Your task to perform on an android device: change the clock style Image 0: 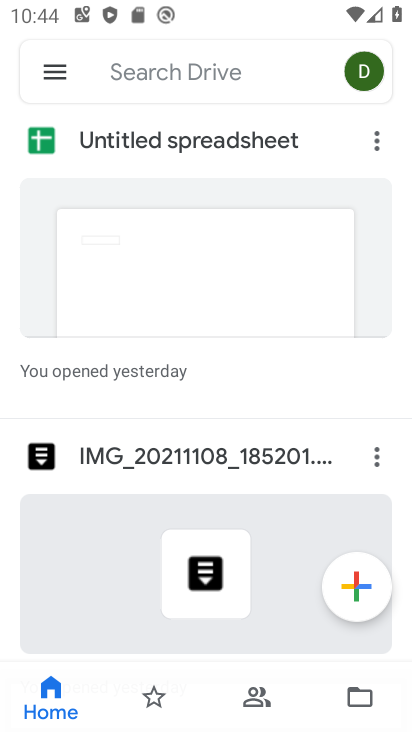
Step 0: press back button
Your task to perform on an android device: change the clock style Image 1: 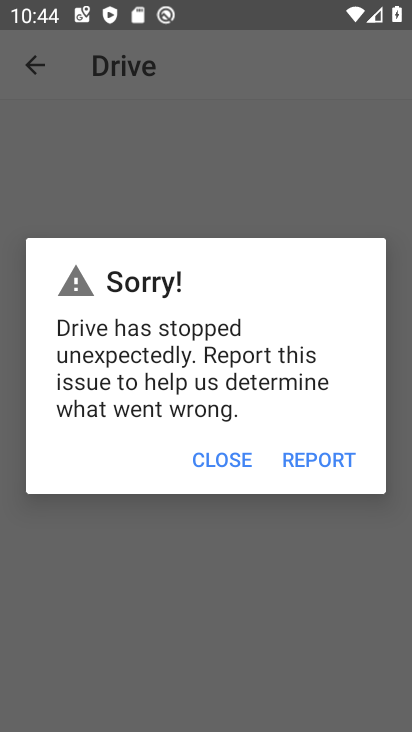
Step 1: press home button
Your task to perform on an android device: change the clock style Image 2: 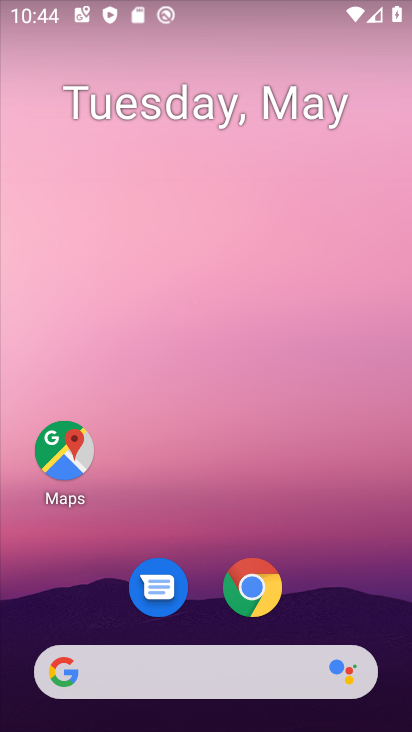
Step 2: drag from (308, 586) to (236, 73)
Your task to perform on an android device: change the clock style Image 3: 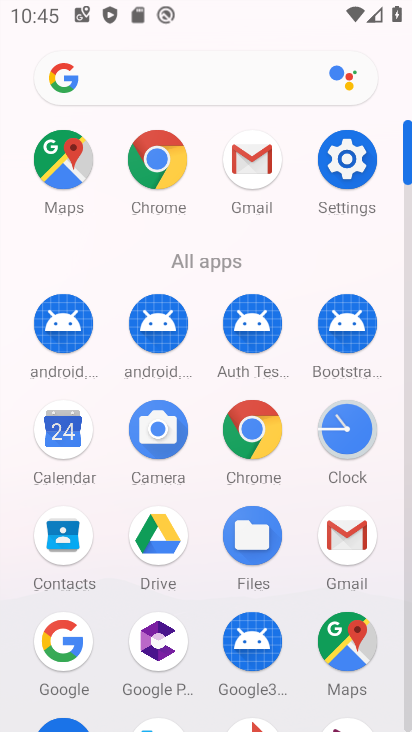
Step 3: drag from (3, 533) to (3, 261)
Your task to perform on an android device: change the clock style Image 4: 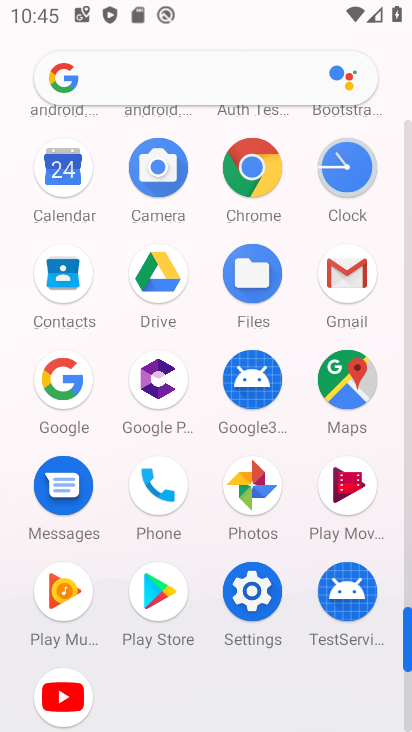
Step 4: click (343, 160)
Your task to perform on an android device: change the clock style Image 5: 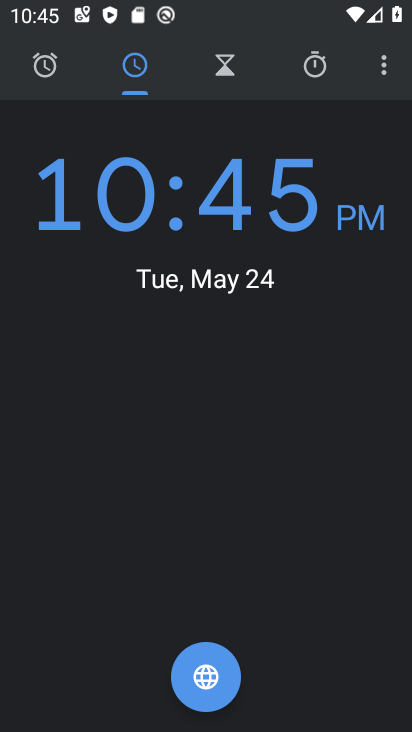
Step 5: drag from (381, 65) to (329, 127)
Your task to perform on an android device: change the clock style Image 6: 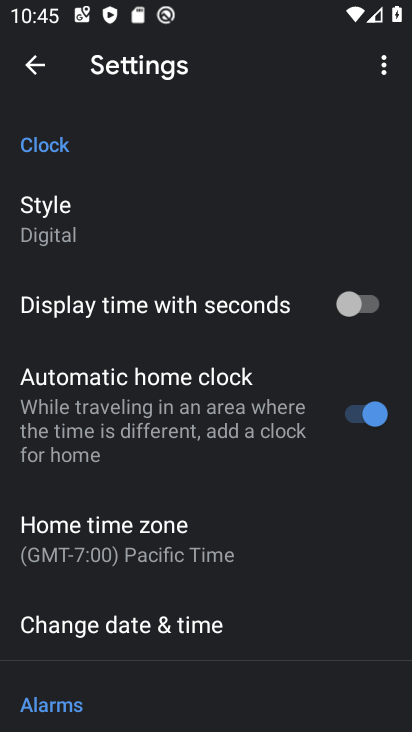
Step 6: click (117, 223)
Your task to perform on an android device: change the clock style Image 7: 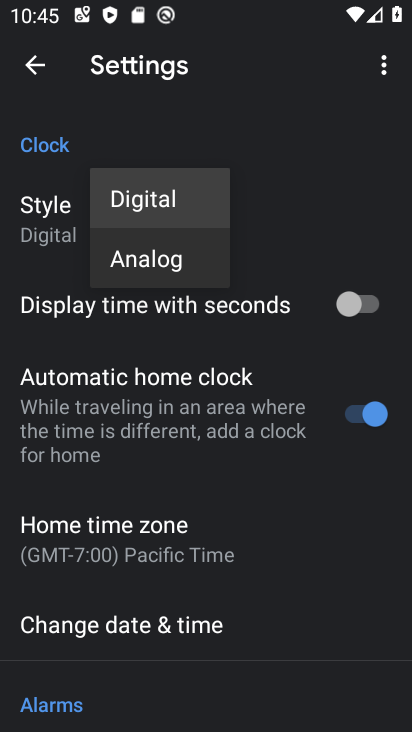
Step 7: click (141, 253)
Your task to perform on an android device: change the clock style Image 8: 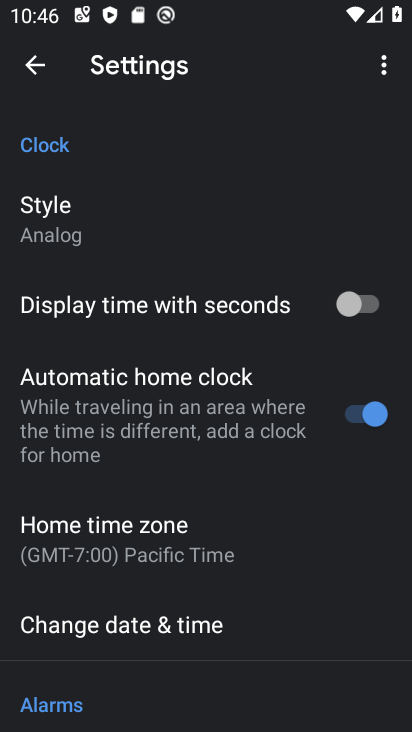
Step 8: task complete